Your task to perform on an android device: snooze an email in the gmail app Image 0: 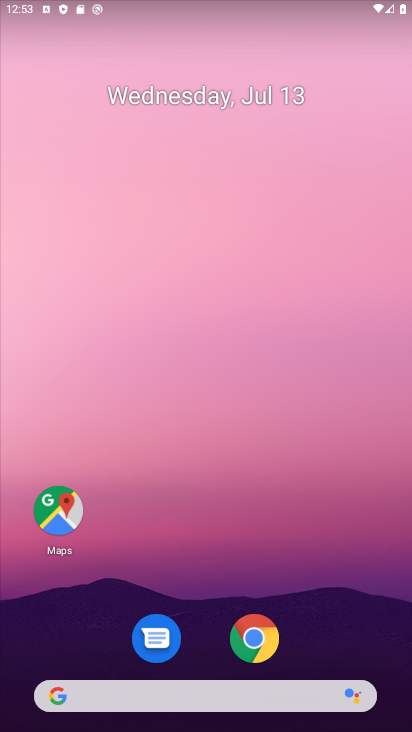
Step 0: drag from (226, 693) to (330, 3)
Your task to perform on an android device: snooze an email in the gmail app Image 1: 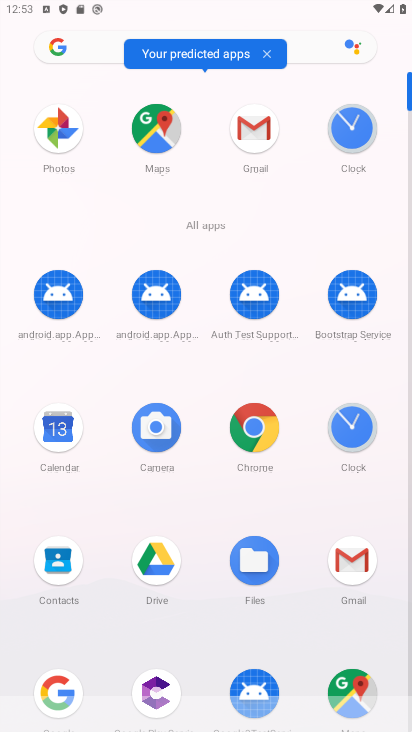
Step 1: click (254, 154)
Your task to perform on an android device: snooze an email in the gmail app Image 2: 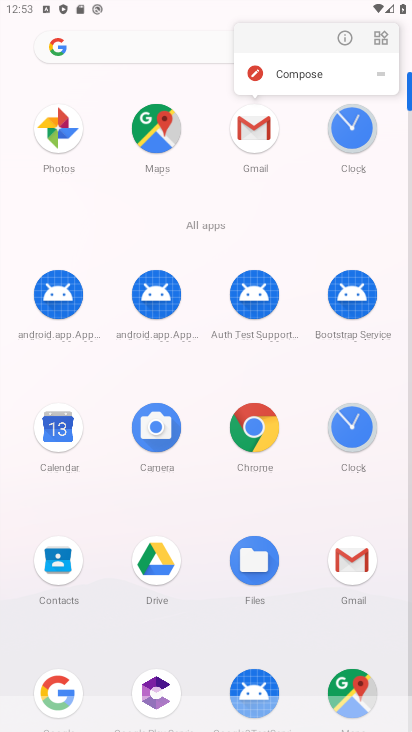
Step 2: click (254, 154)
Your task to perform on an android device: snooze an email in the gmail app Image 3: 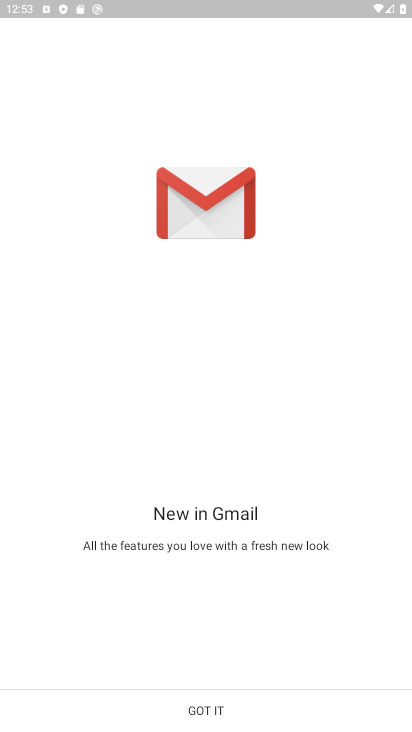
Step 3: click (258, 708)
Your task to perform on an android device: snooze an email in the gmail app Image 4: 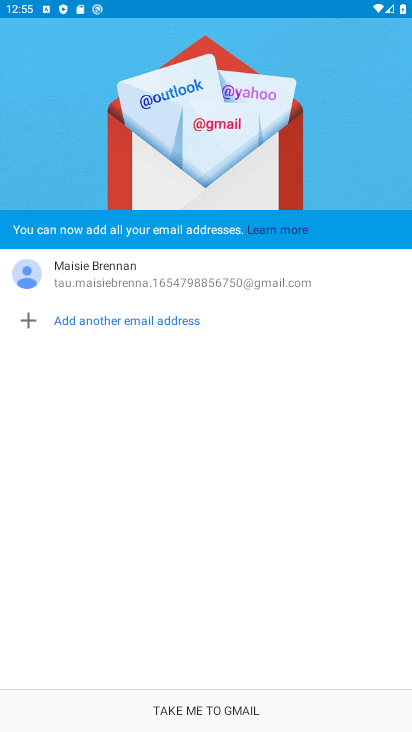
Step 4: click (211, 703)
Your task to perform on an android device: snooze an email in the gmail app Image 5: 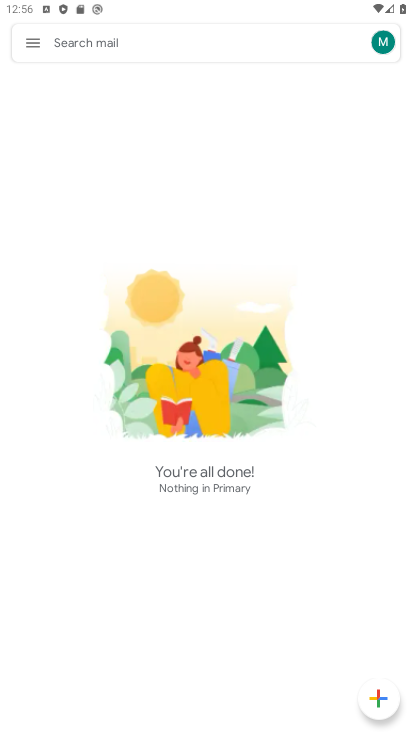
Step 5: click (36, 47)
Your task to perform on an android device: snooze an email in the gmail app Image 6: 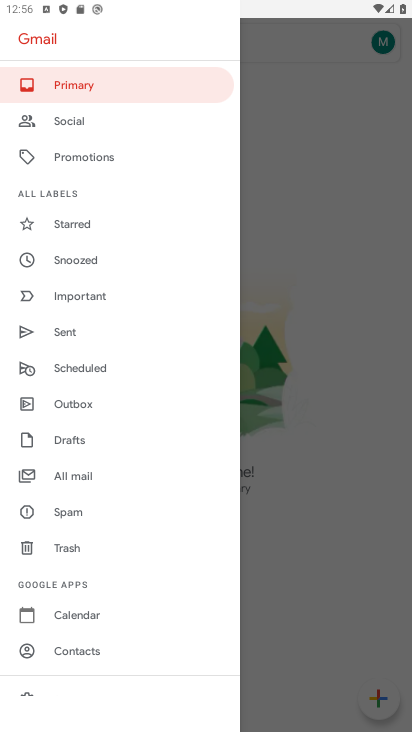
Step 6: click (107, 473)
Your task to perform on an android device: snooze an email in the gmail app Image 7: 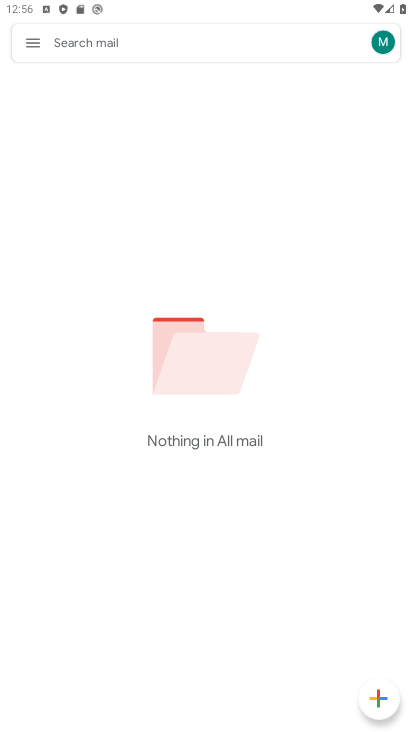
Step 7: task complete